Your task to perform on an android device: Go to Reddit.com Image 0: 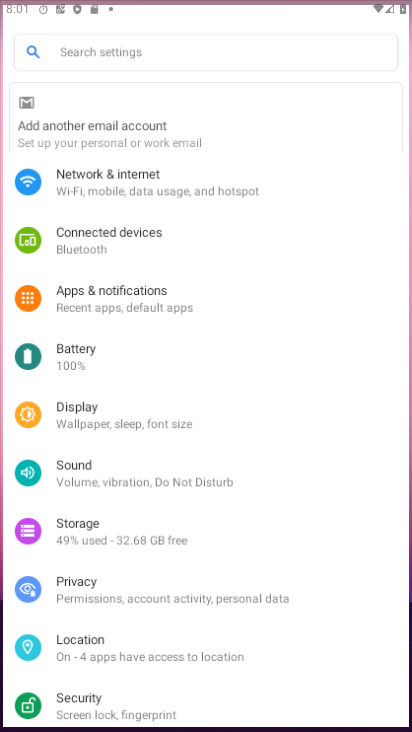
Step 0: press home button
Your task to perform on an android device: Go to Reddit.com Image 1: 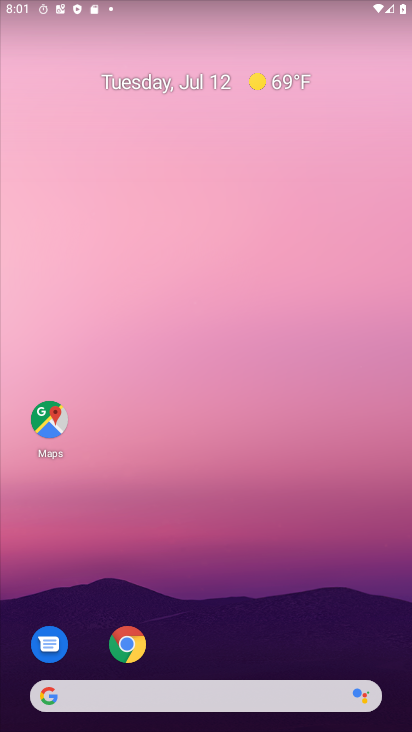
Step 1: click (122, 642)
Your task to perform on an android device: Go to Reddit.com Image 2: 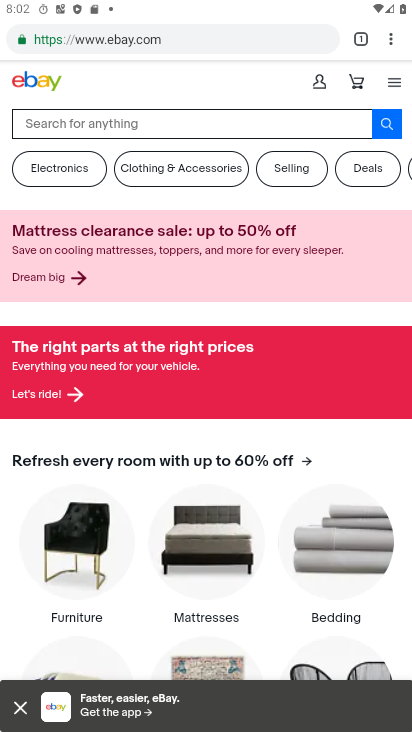
Step 2: click (360, 36)
Your task to perform on an android device: Go to Reddit.com Image 3: 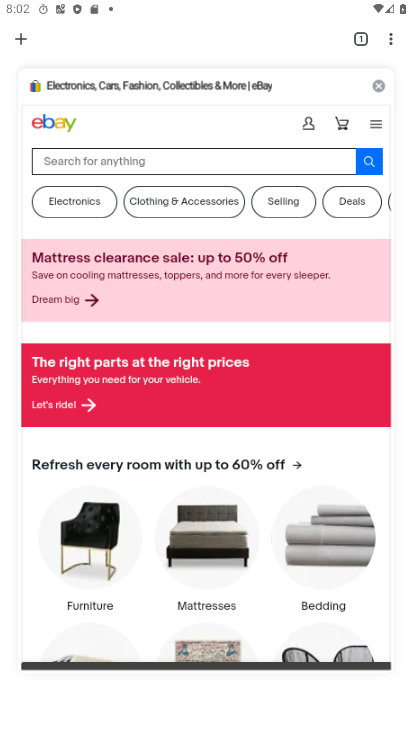
Step 3: click (17, 35)
Your task to perform on an android device: Go to Reddit.com Image 4: 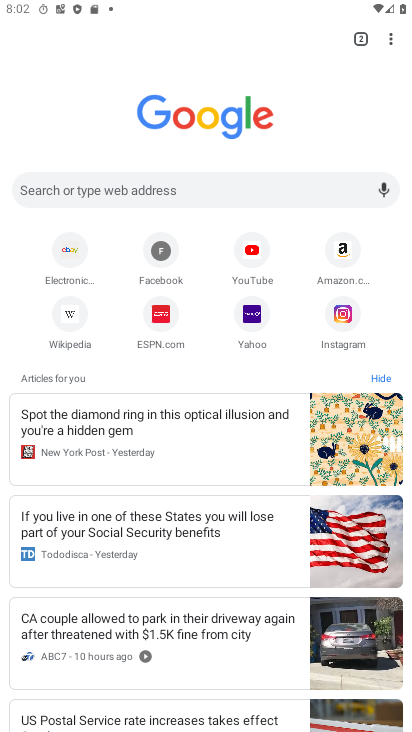
Step 4: click (144, 187)
Your task to perform on an android device: Go to Reddit.com Image 5: 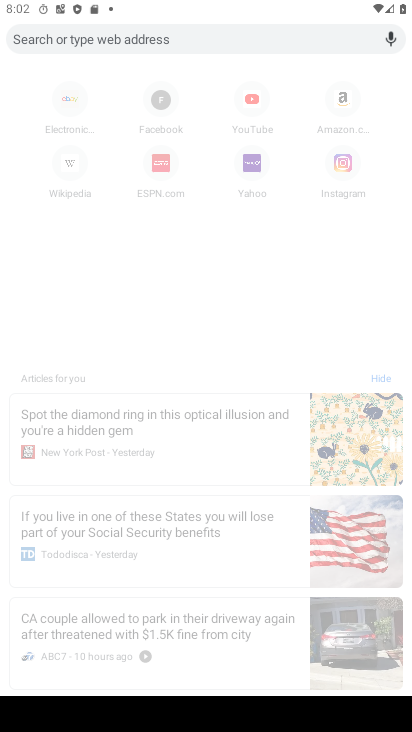
Step 5: type "reddit.com"
Your task to perform on an android device: Go to Reddit.com Image 6: 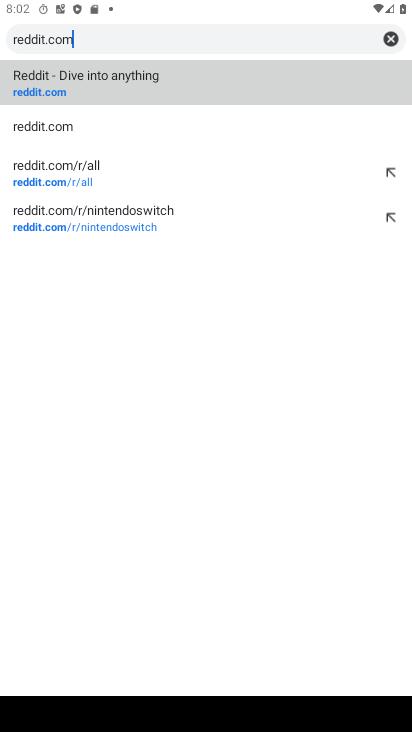
Step 6: click (92, 79)
Your task to perform on an android device: Go to Reddit.com Image 7: 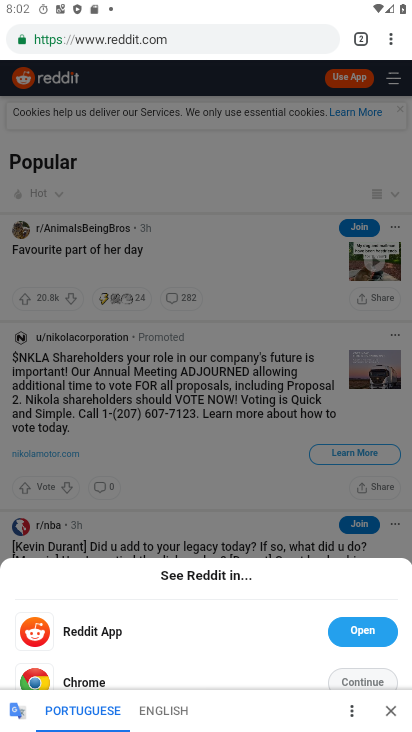
Step 7: click (376, 678)
Your task to perform on an android device: Go to Reddit.com Image 8: 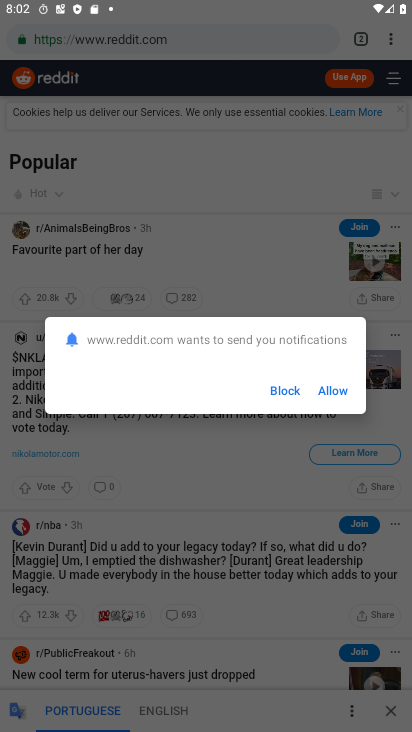
Step 8: click (336, 389)
Your task to perform on an android device: Go to Reddit.com Image 9: 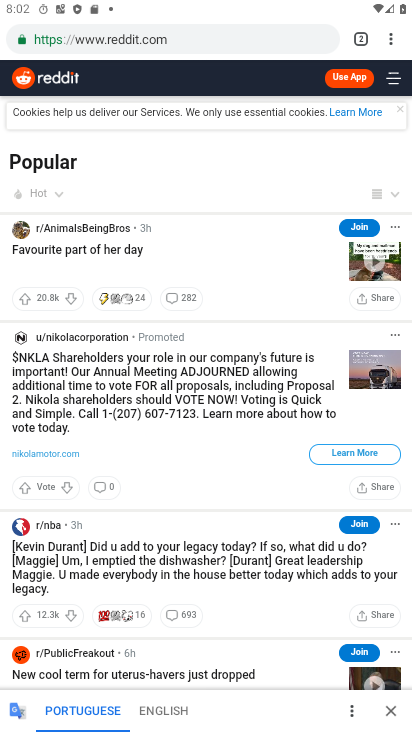
Step 9: task complete